Your task to perform on an android device: Open Android settings Image 0: 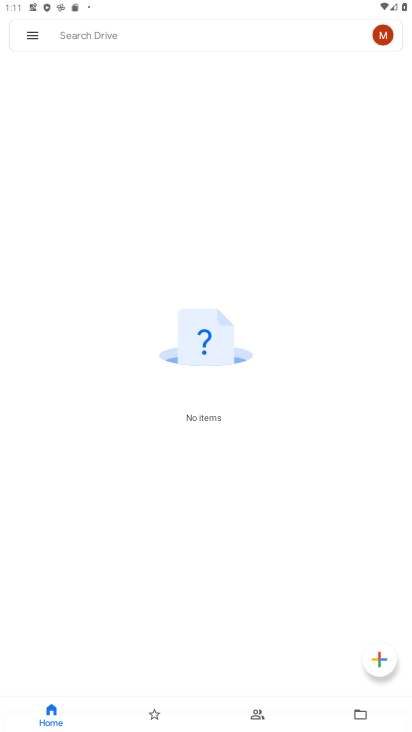
Step 0: press home button
Your task to perform on an android device: Open Android settings Image 1: 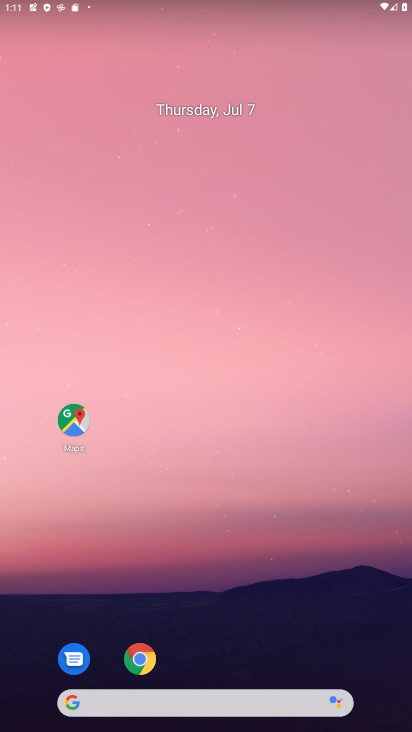
Step 1: drag from (308, 553) to (207, 241)
Your task to perform on an android device: Open Android settings Image 2: 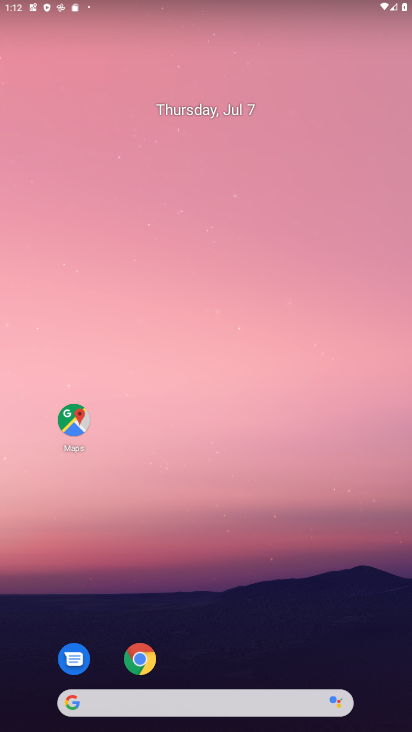
Step 2: drag from (248, 581) to (159, 156)
Your task to perform on an android device: Open Android settings Image 3: 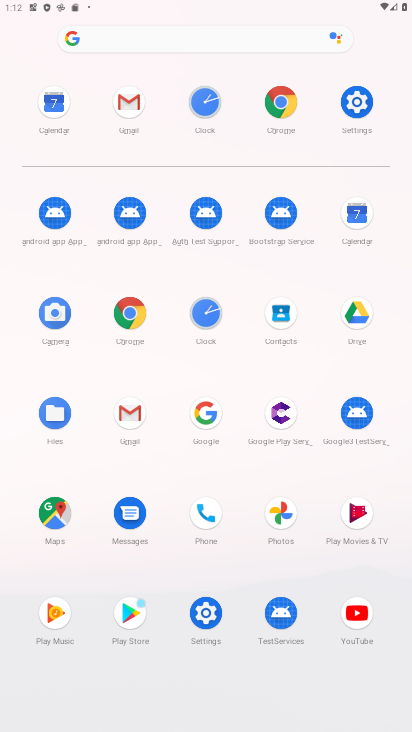
Step 3: click (359, 104)
Your task to perform on an android device: Open Android settings Image 4: 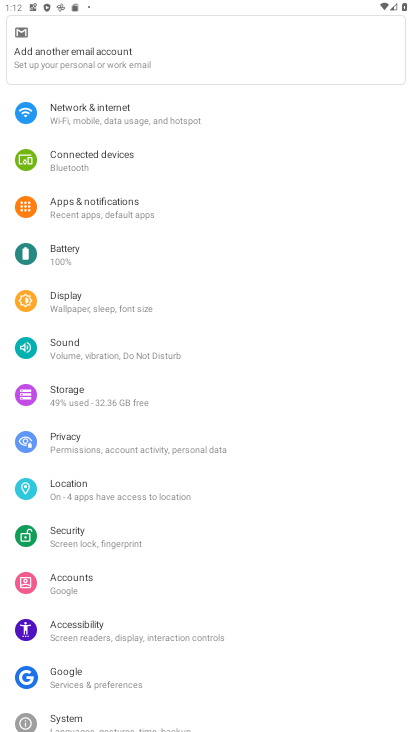
Step 4: task complete